Your task to perform on an android device: Open Google Chrome and open the bookmarks view Image 0: 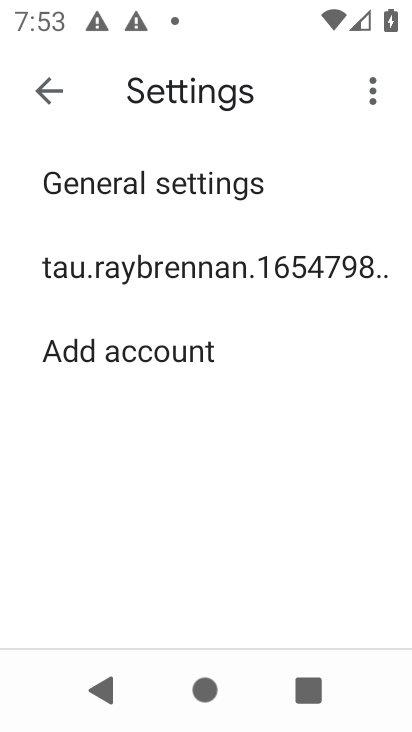
Step 0: press home button
Your task to perform on an android device: Open Google Chrome and open the bookmarks view Image 1: 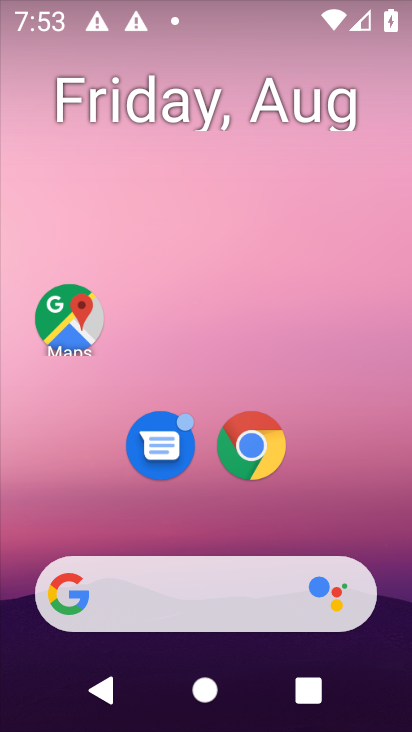
Step 1: click (251, 450)
Your task to perform on an android device: Open Google Chrome and open the bookmarks view Image 2: 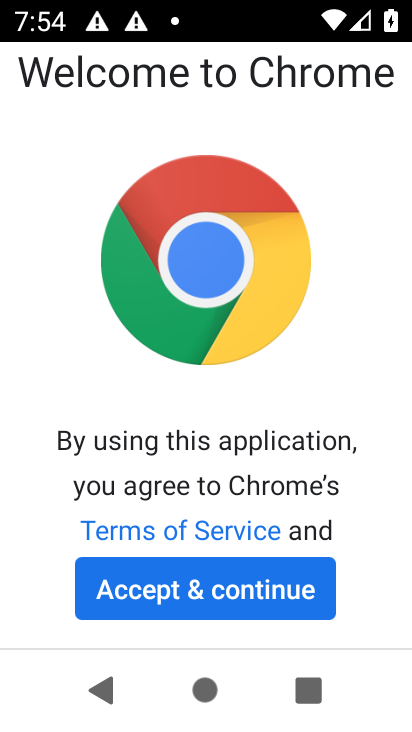
Step 2: click (281, 596)
Your task to perform on an android device: Open Google Chrome and open the bookmarks view Image 3: 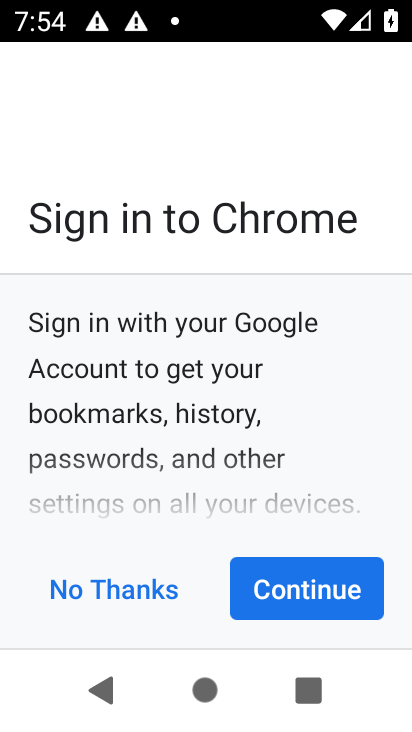
Step 3: click (279, 583)
Your task to perform on an android device: Open Google Chrome and open the bookmarks view Image 4: 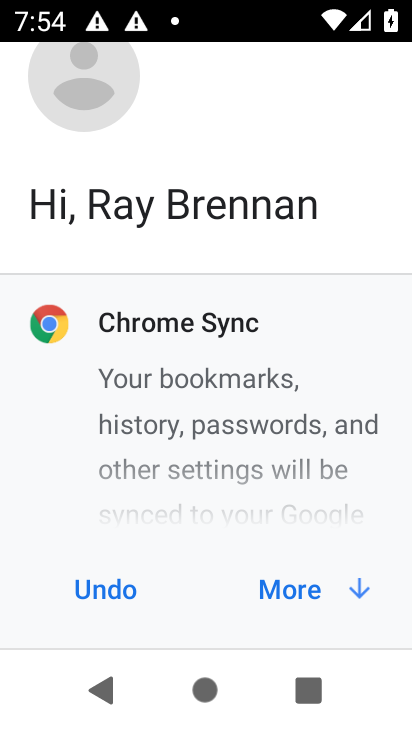
Step 4: click (292, 566)
Your task to perform on an android device: Open Google Chrome and open the bookmarks view Image 5: 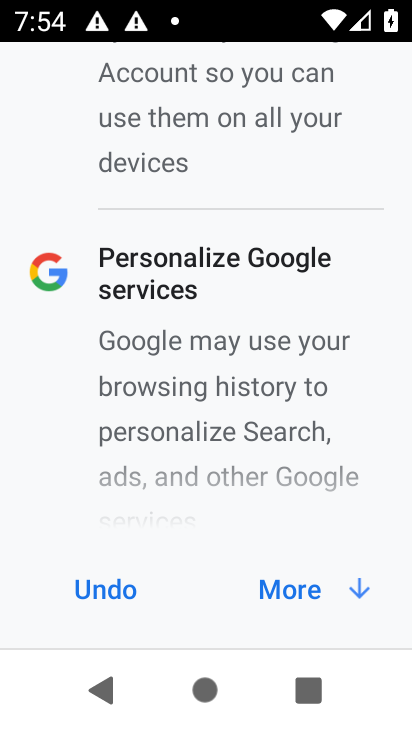
Step 5: click (277, 588)
Your task to perform on an android device: Open Google Chrome and open the bookmarks view Image 6: 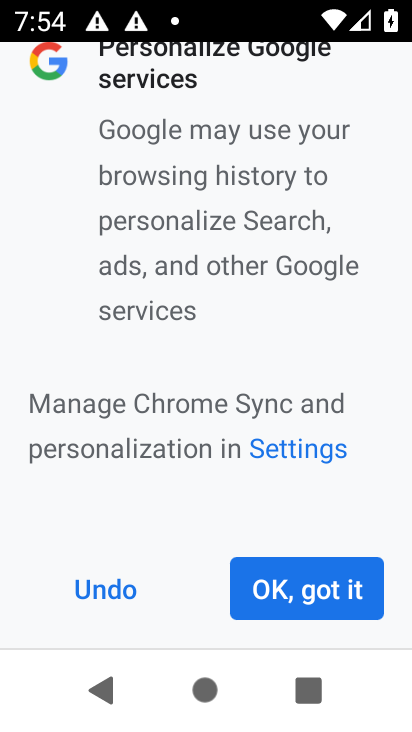
Step 6: click (277, 588)
Your task to perform on an android device: Open Google Chrome and open the bookmarks view Image 7: 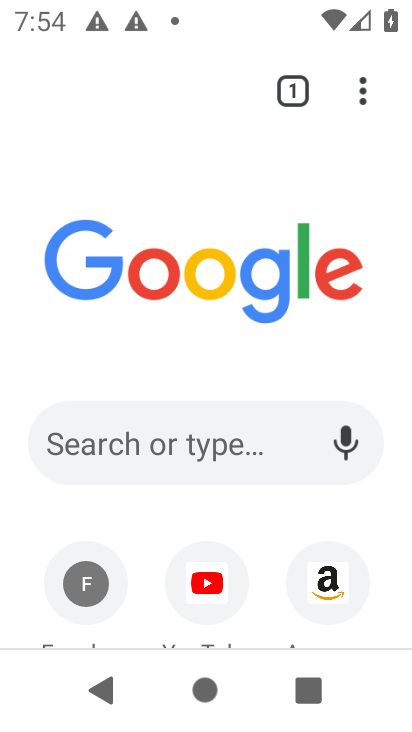
Step 7: click (367, 92)
Your task to perform on an android device: Open Google Chrome and open the bookmarks view Image 8: 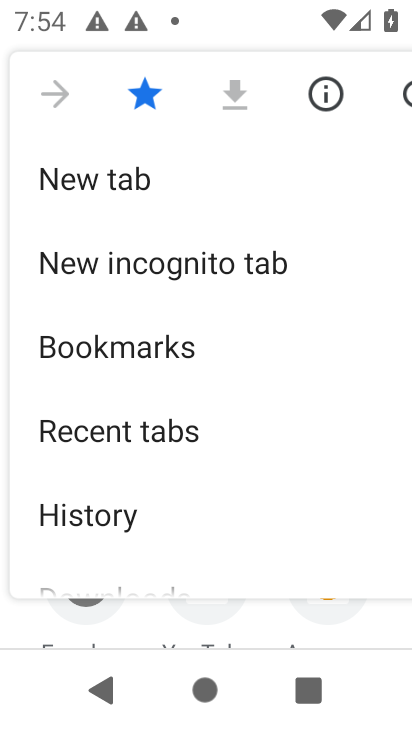
Step 8: click (178, 352)
Your task to perform on an android device: Open Google Chrome and open the bookmarks view Image 9: 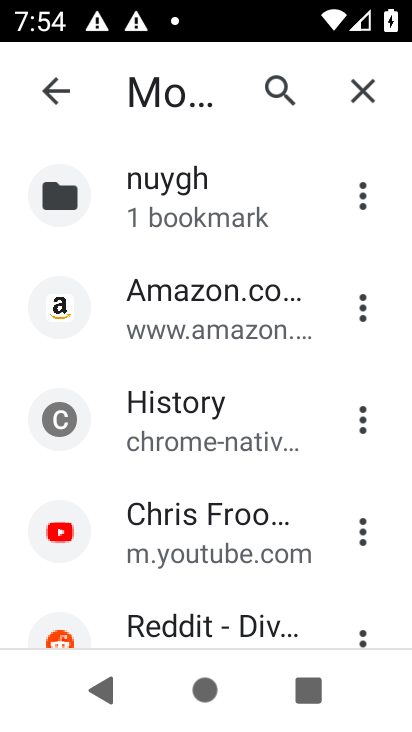
Step 9: task complete